Your task to perform on an android device: Go to Maps Image 0: 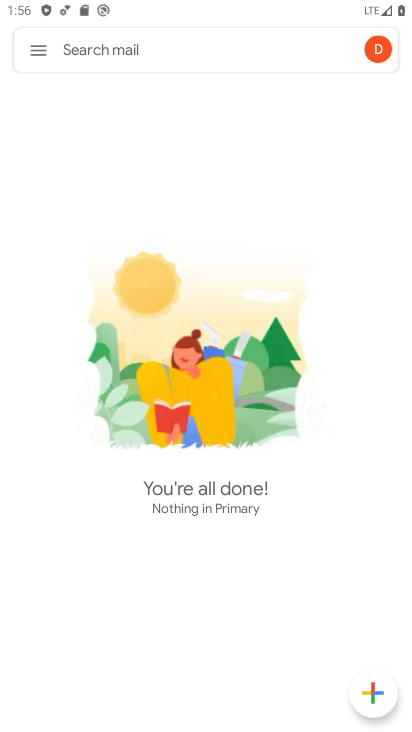
Step 0: press back button
Your task to perform on an android device: Go to Maps Image 1: 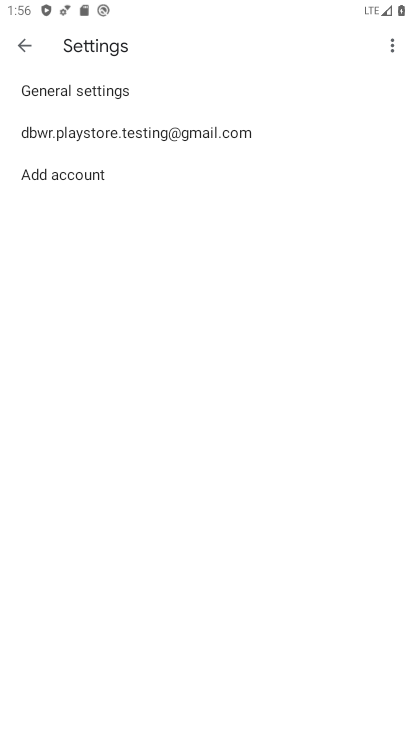
Step 1: press back button
Your task to perform on an android device: Go to Maps Image 2: 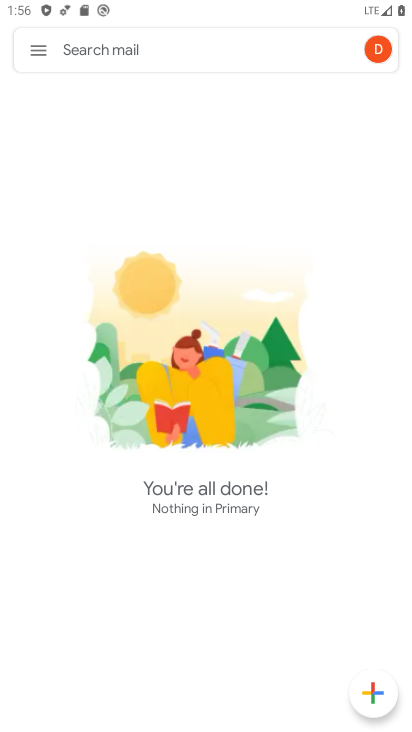
Step 2: press back button
Your task to perform on an android device: Go to Maps Image 3: 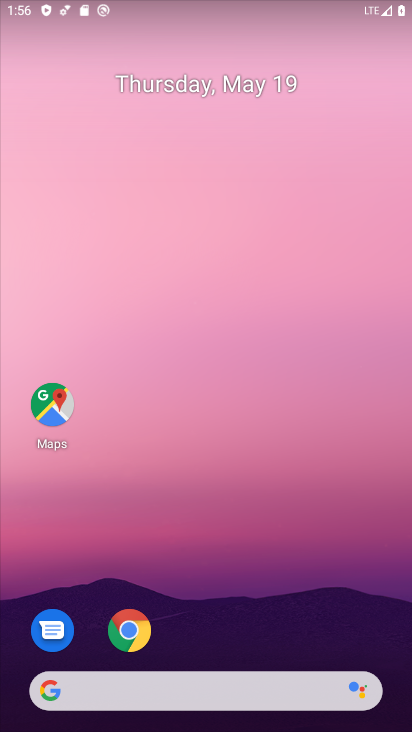
Step 3: drag from (253, 581) to (258, 24)
Your task to perform on an android device: Go to Maps Image 4: 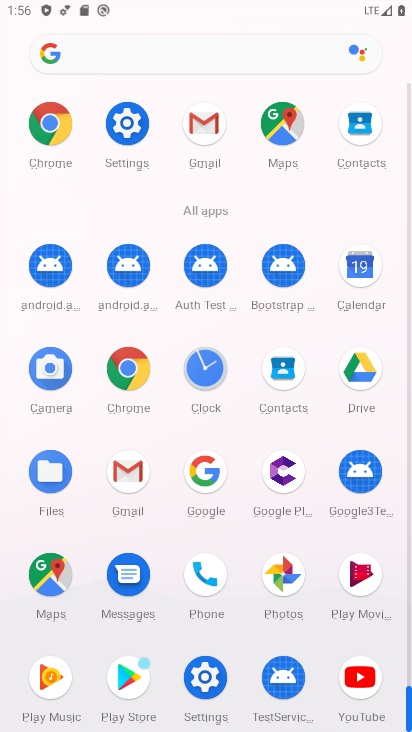
Step 4: click (277, 121)
Your task to perform on an android device: Go to Maps Image 5: 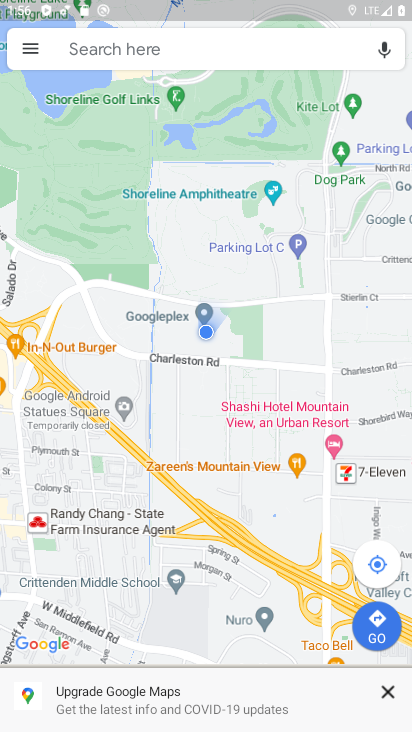
Step 5: task complete